Your task to perform on an android device: Open CNN.com Image 0: 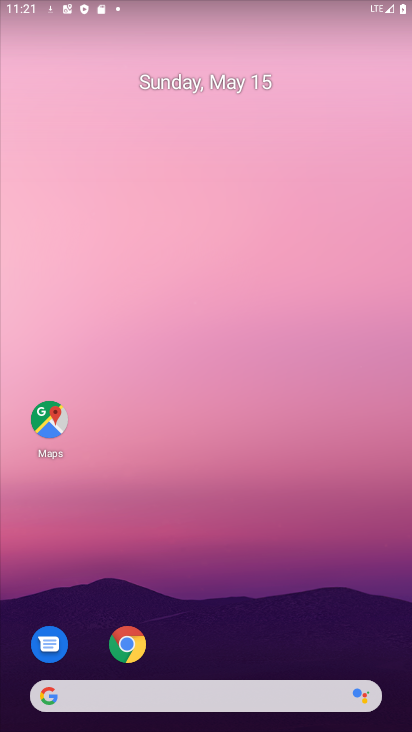
Step 0: drag from (229, 707) to (240, 233)
Your task to perform on an android device: Open CNN.com Image 1: 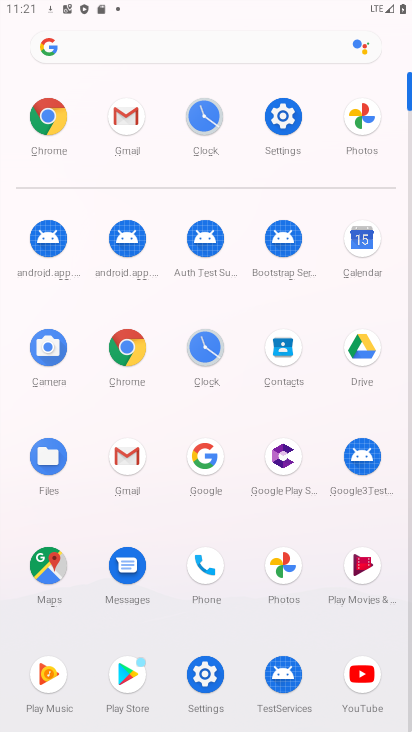
Step 1: click (127, 335)
Your task to perform on an android device: Open CNN.com Image 2: 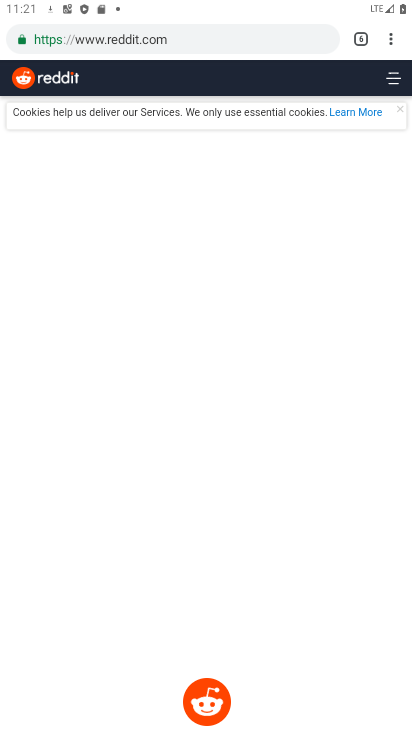
Step 2: click (149, 41)
Your task to perform on an android device: Open CNN.com Image 3: 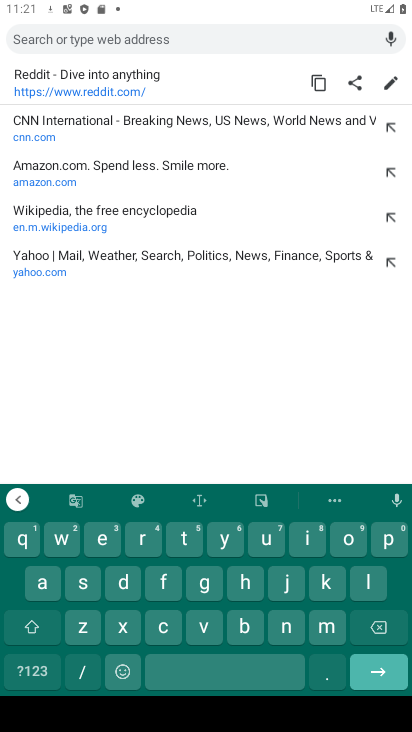
Step 3: click (165, 630)
Your task to perform on an android device: Open CNN.com Image 4: 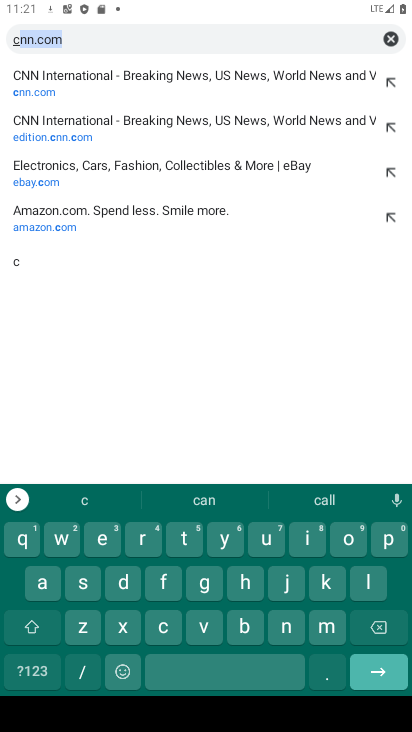
Step 4: click (90, 36)
Your task to perform on an android device: Open CNN.com Image 5: 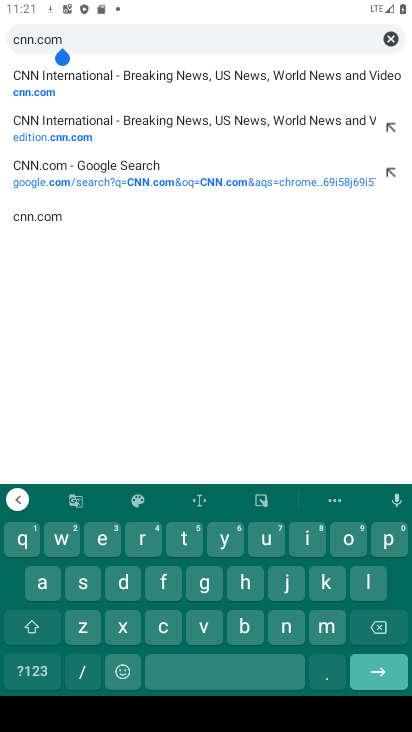
Step 5: click (381, 670)
Your task to perform on an android device: Open CNN.com Image 6: 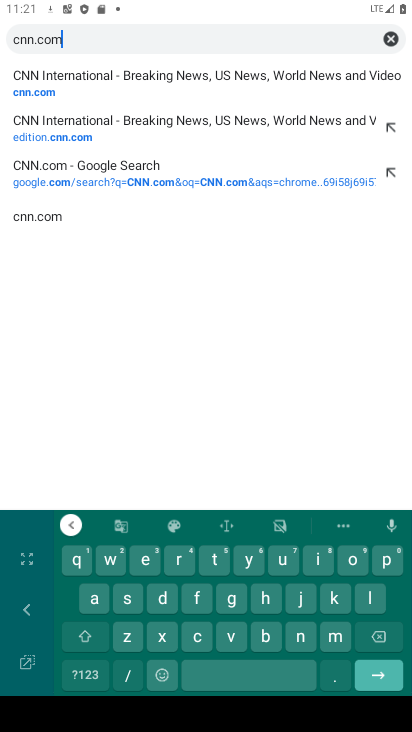
Step 6: click (385, 677)
Your task to perform on an android device: Open CNN.com Image 7: 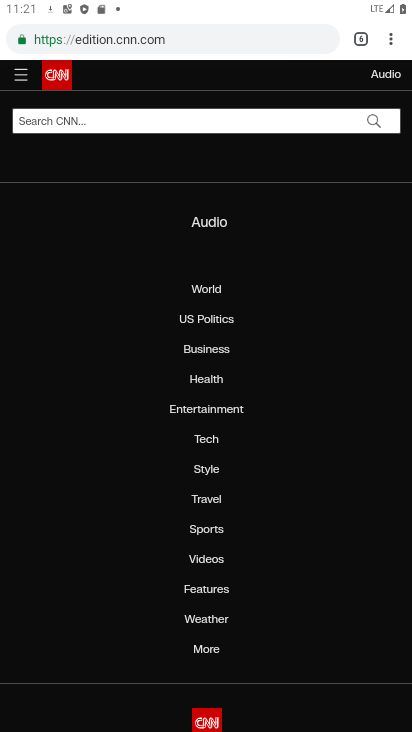
Step 7: task complete